Your task to perform on an android device: Do I have any events this weekend? Image 0: 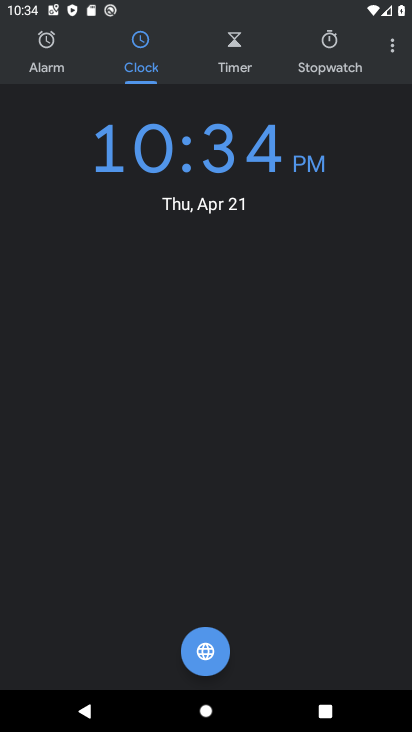
Step 0: press home button
Your task to perform on an android device: Do I have any events this weekend? Image 1: 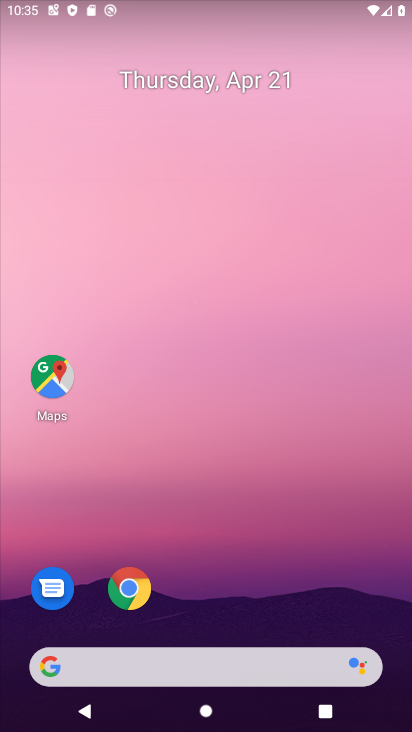
Step 1: drag from (211, 572) to (219, 142)
Your task to perform on an android device: Do I have any events this weekend? Image 2: 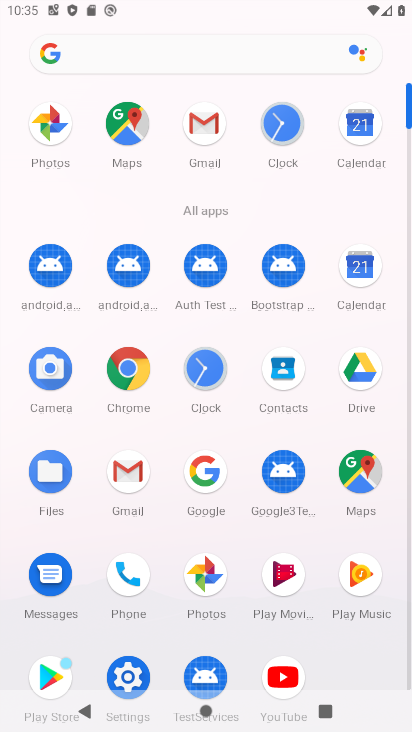
Step 2: click (351, 276)
Your task to perform on an android device: Do I have any events this weekend? Image 3: 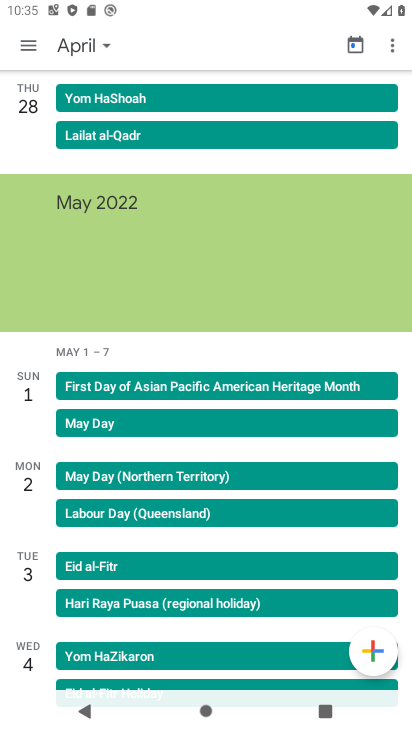
Step 3: click (83, 40)
Your task to perform on an android device: Do I have any events this weekend? Image 4: 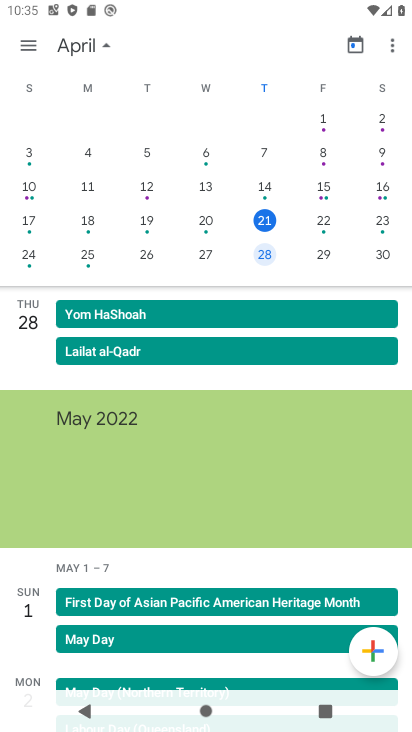
Step 4: click (375, 221)
Your task to perform on an android device: Do I have any events this weekend? Image 5: 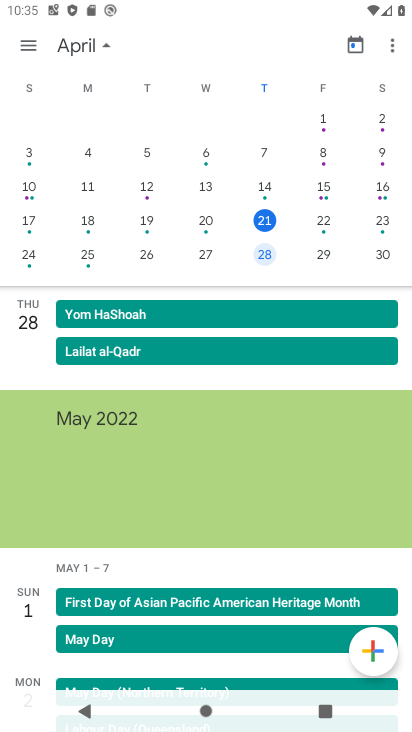
Step 5: click (374, 226)
Your task to perform on an android device: Do I have any events this weekend? Image 6: 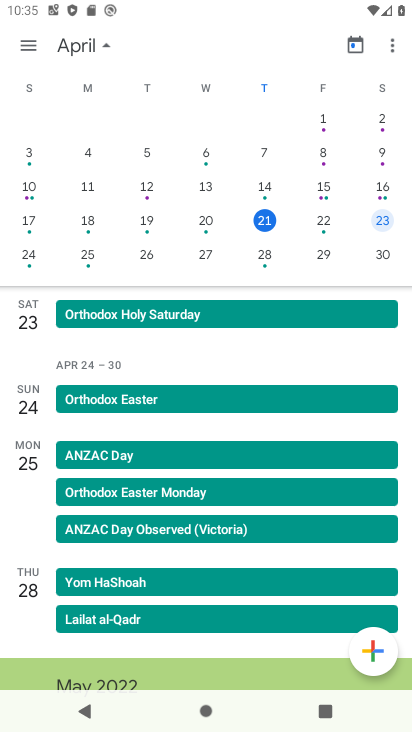
Step 6: task complete